Your task to perform on an android device: clear all cookies in the chrome app Image 0: 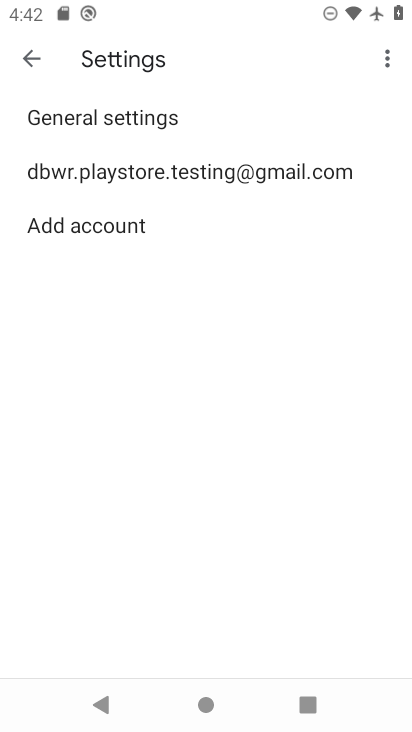
Step 0: press home button
Your task to perform on an android device: clear all cookies in the chrome app Image 1: 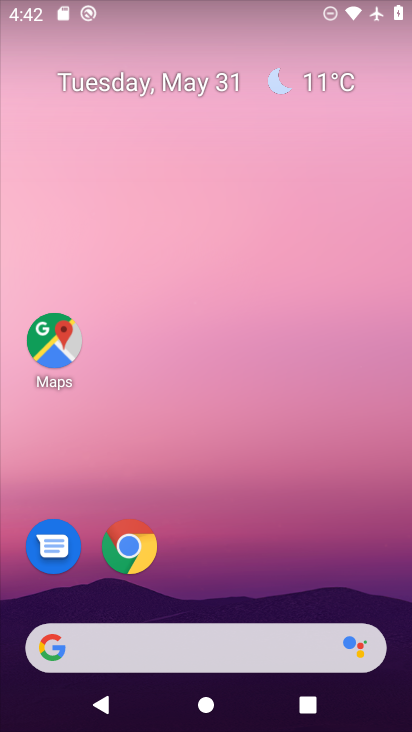
Step 1: drag from (257, 496) to (188, 15)
Your task to perform on an android device: clear all cookies in the chrome app Image 2: 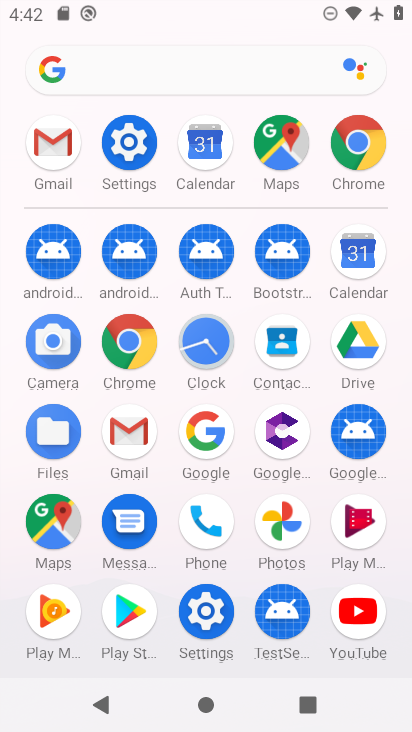
Step 2: click (138, 350)
Your task to perform on an android device: clear all cookies in the chrome app Image 3: 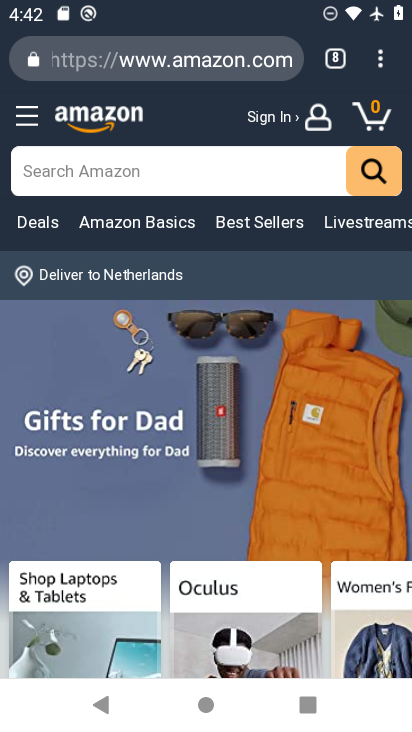
Step 3: click (381, 65)
Your task to perform on an android device: clear all cookies in the chrome app Image 4: 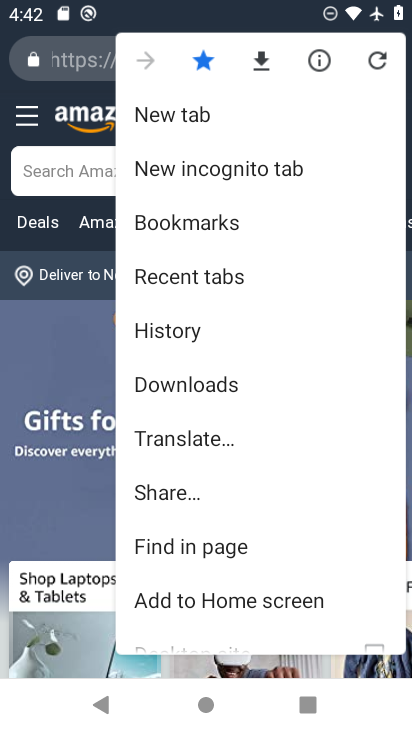
Step 4: click (189, 336)
Your task to perform on an android device: clear all cookies in the chrome app Image 5: 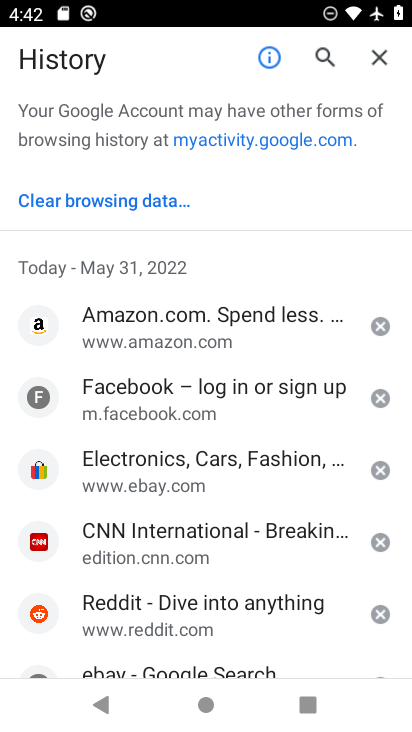
Step 5: click (133, 201)
Your task to perform on an android device: clear all cookies in the chrome app Image 6: 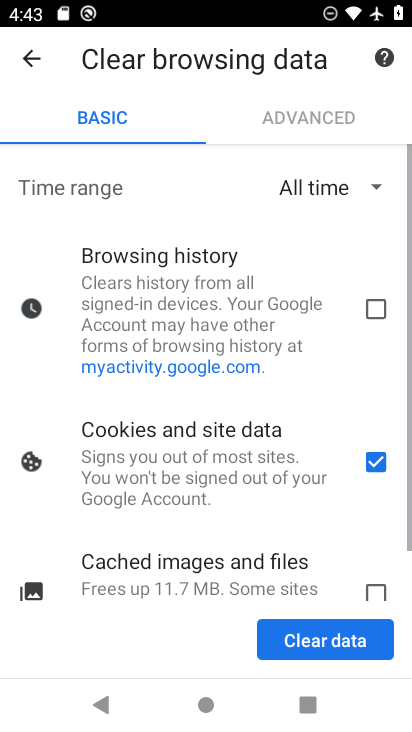
Step 6: click (328, 642)
Your task to perform on an android device: clear all cookies in the chrome app Image 7: 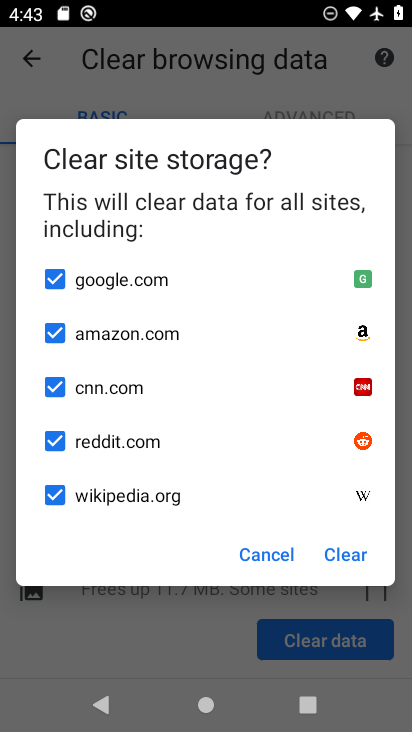
Step 7: click (353, 553)
Your task to perform on an android device: clear all cookies in the chrome app Image 8: 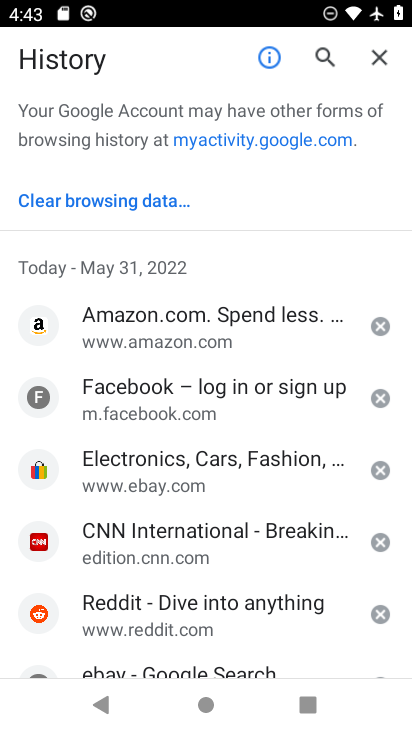
Step 8: task complete